Your task to perform on an android device: toggle improve location accuracy Image 0: 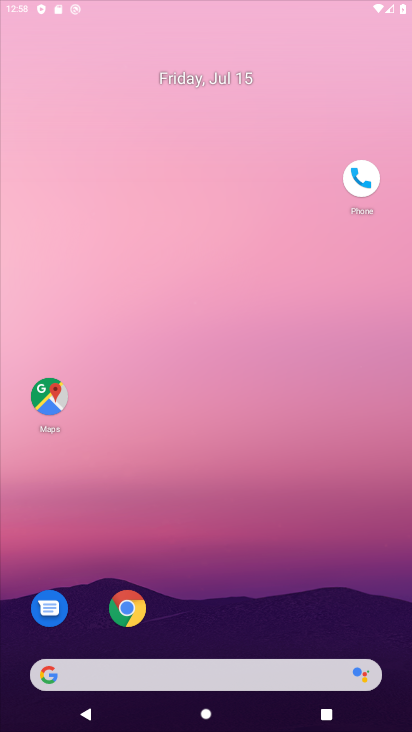
Step 0: click (204, 195)
Your task to perform on an android device: toggle improve location accuracy Image 1: 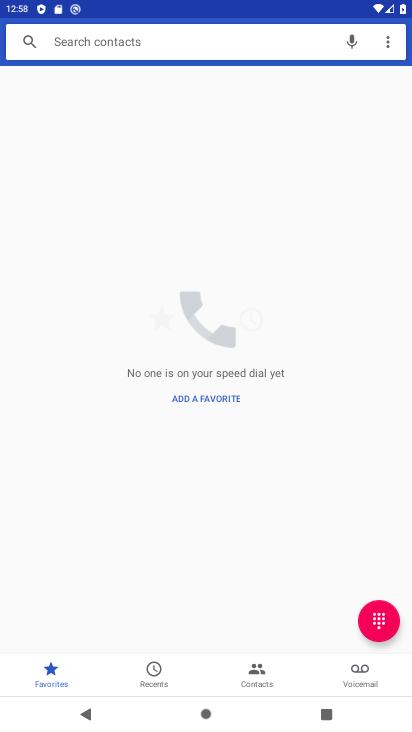
Step 1: drag from (208, 607) to (218, 120)
Your task to perform on an android device: toggle improve location accuracy Image 2: 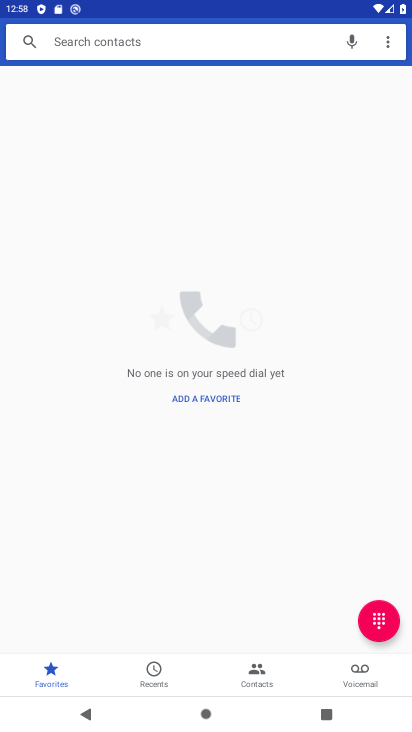
Step 2: press home button
Your task to perform on an android device: toggle improve location accuracy Image 3: 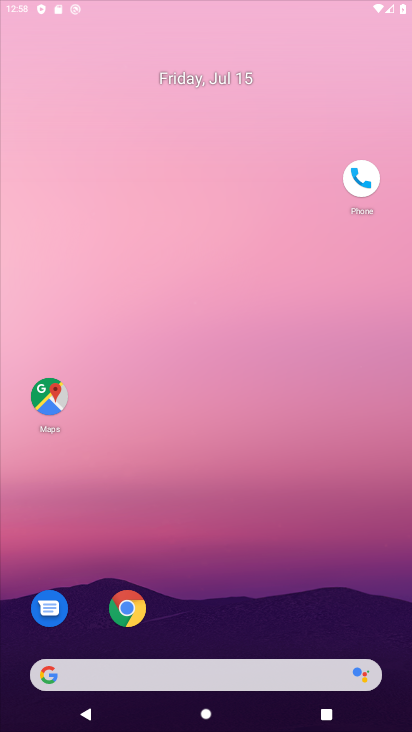
Step 3: drag from (205, 511) to (182, 40)
Your task to perform on an android device: toggle improve location accuracy Image 4: 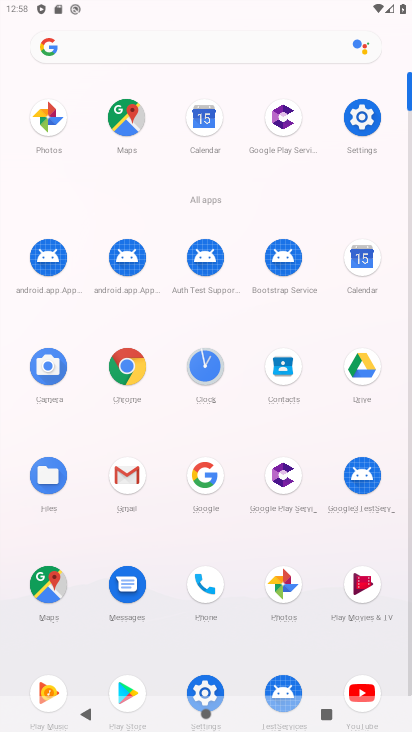
Step 4: drag from (149, 632) to (179, 197)
Your task to perform on an android device: toggle improve location accuracy Image 5: 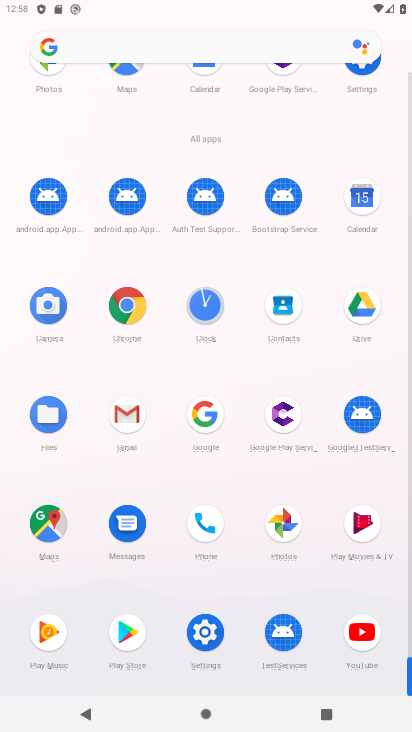
Step 5: drag from (194, 572) to (223, 285)
Your task to perform on an android device: toggle improve location accuracy Image 6: 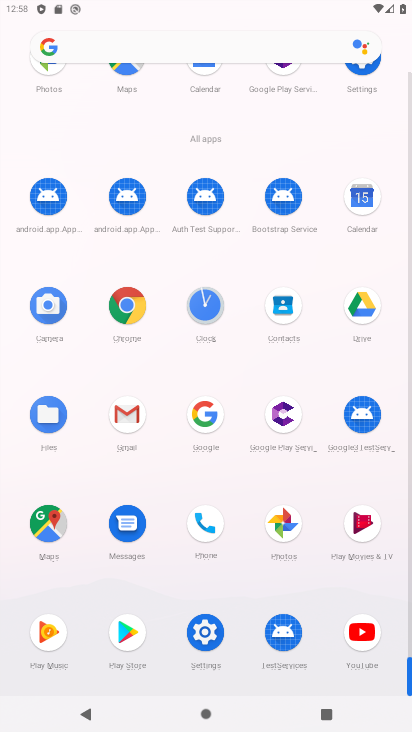
Step 6: click (202, 626)
Your task to perform on an android device: toggle improve location accuracy Image 7: 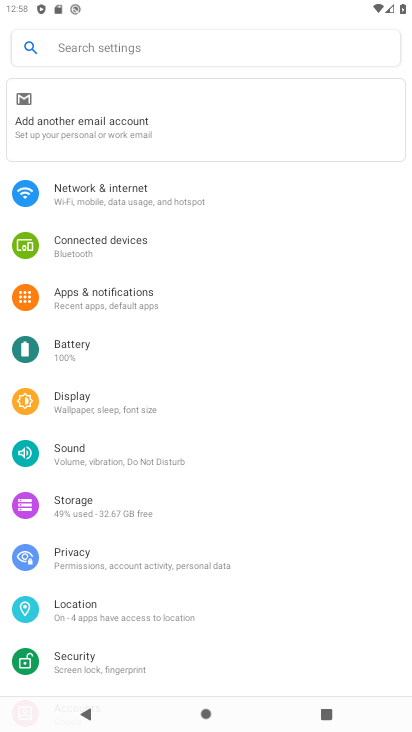
Step 7: click (91, 604)
Your task to perform on an android device: toggle improve location accuracy Image 8: 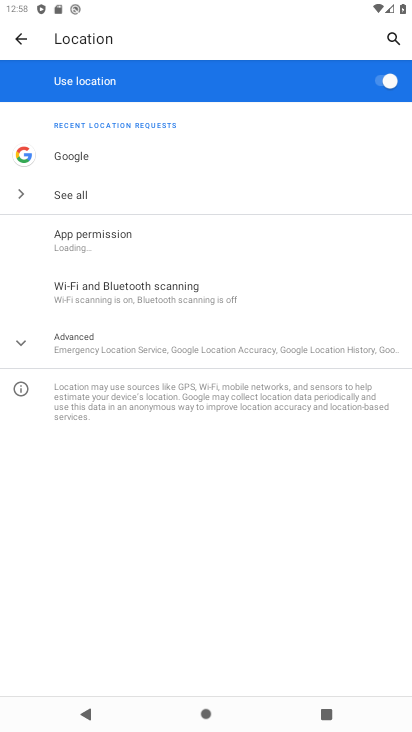
Step 8: click (115, 367)
Your task to perform on an android device: toggle improve location accuracy Image 9: 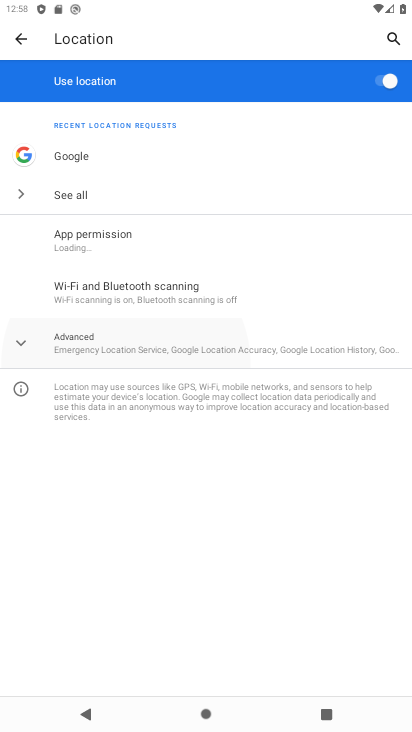
Step 9: click (116, 348)
Your task to perform on an android device: toggle improve location accuracy Image 10: 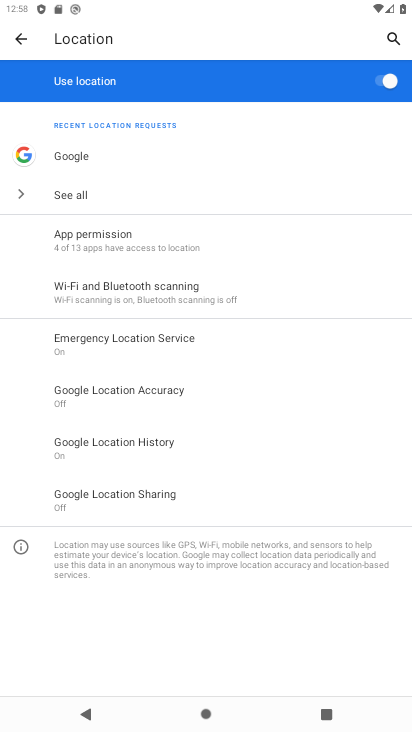
Step 10: click (161, 402)
Your task to perform on an android device: toggle improve location accuracy Image 11: 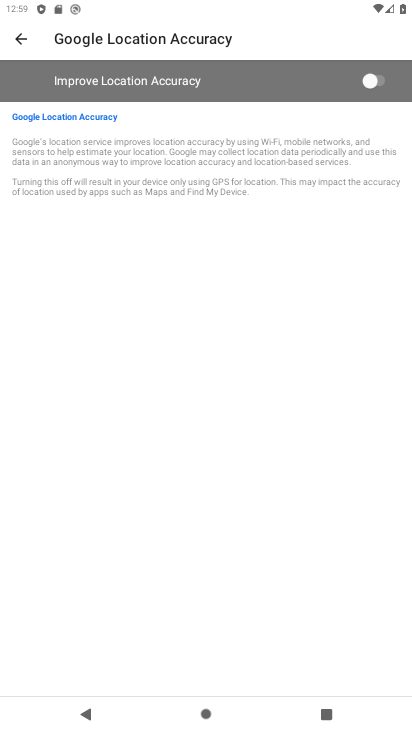
Step 11: click (349, 78)
Your task to perform on an android device: toggle improve location accuracy Image 12: 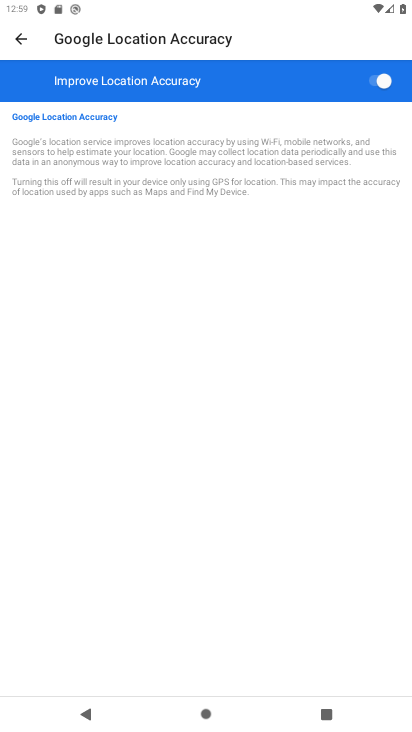
Step 12: task complete